Your task to perform on an android device: Search for pizza restaurants on Maps Image 0: 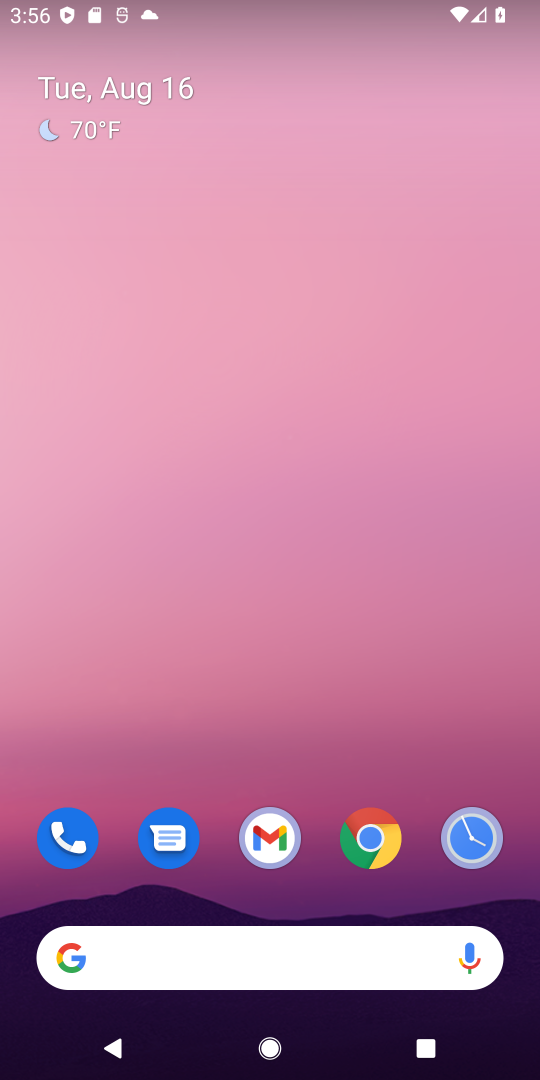
Step 0: drag from (304, 930) to (264, 347)
Your task to perform on an android device: Search for pizza restaurants on Maps Image 1: 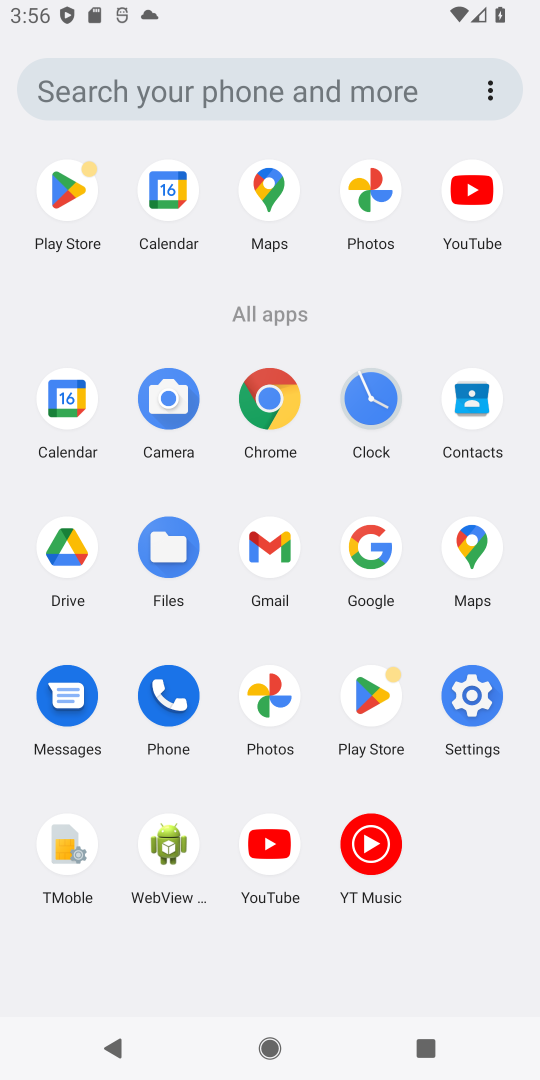
Step 1: click (468, 568)
Your task to perform on an android device: Search for pizza restaurants on Maps Image 2: 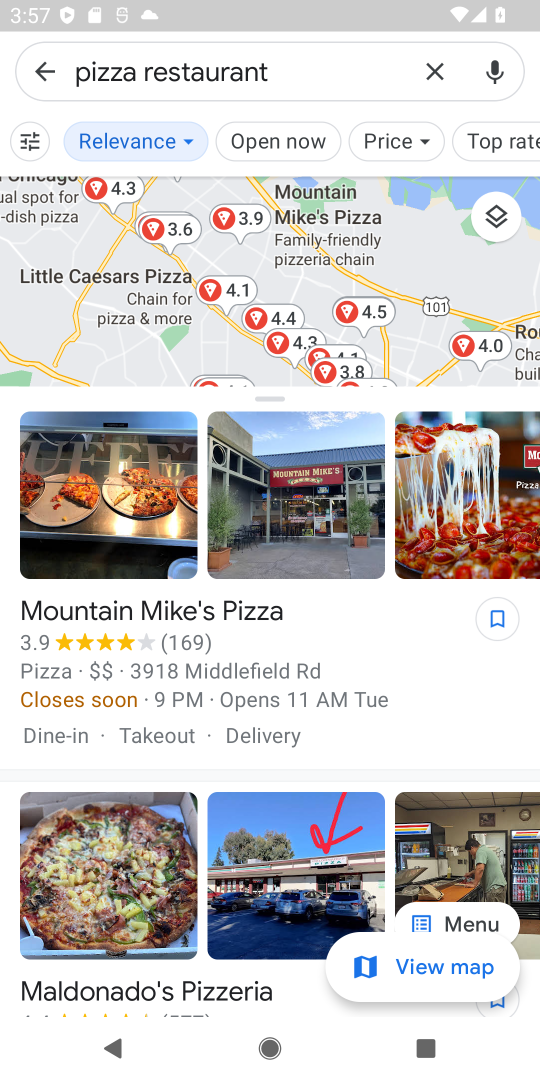
Step 2: task complete